Your task to perform on an android device: open chrome privacy settings Image 0: 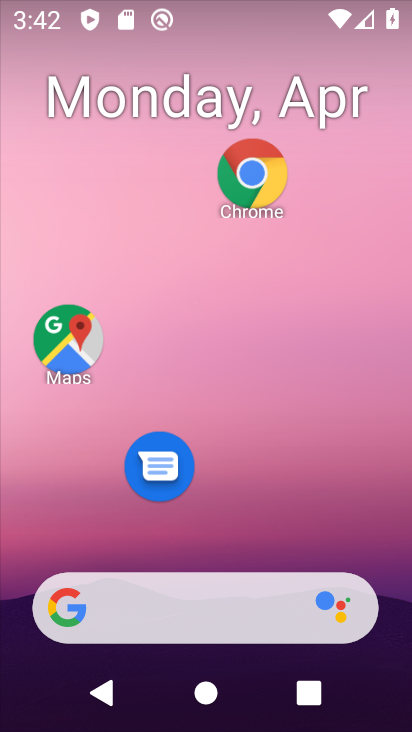
Step 0: click (248, 192)
Your task to perform on an android device: open chrome privacy settings Image 1: 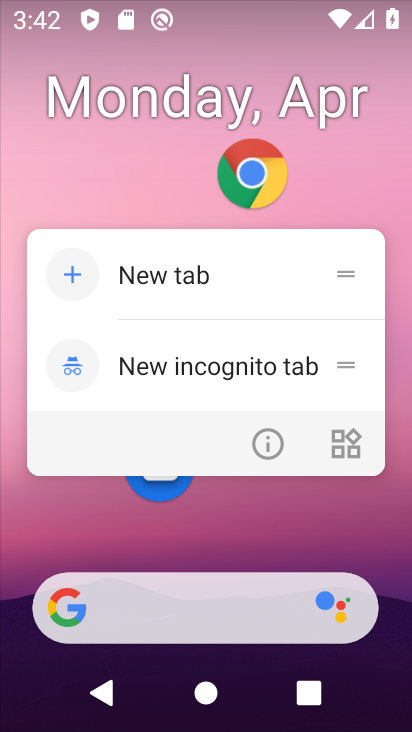
Step 1: click (226, 160)
Your task to perform on an android device: open chrome privacy settings Image 2: 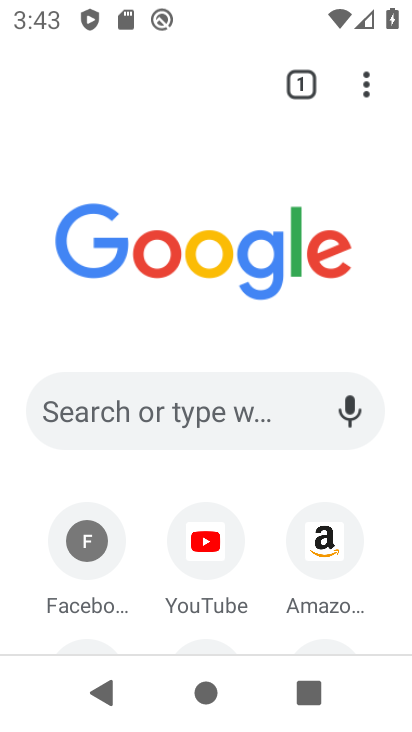
Step 2: click (367, 97)
Your task to perform on an android device: open chrome privacy settings Image 3: 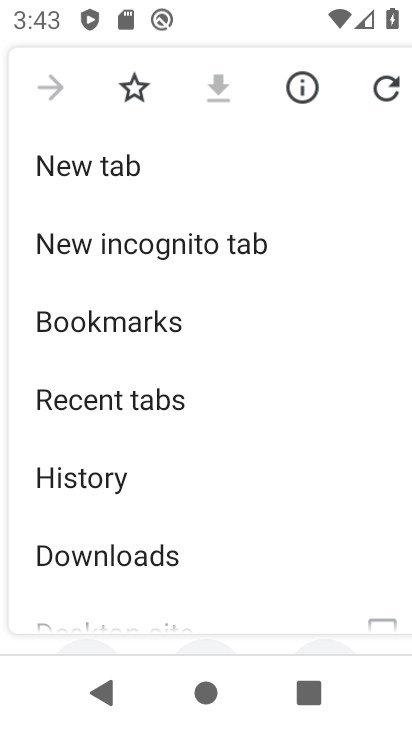
Step 3: drag from (280, 567) to (276, 194)
Your task to perform on an android device: open chrome privacy settings Image 4: 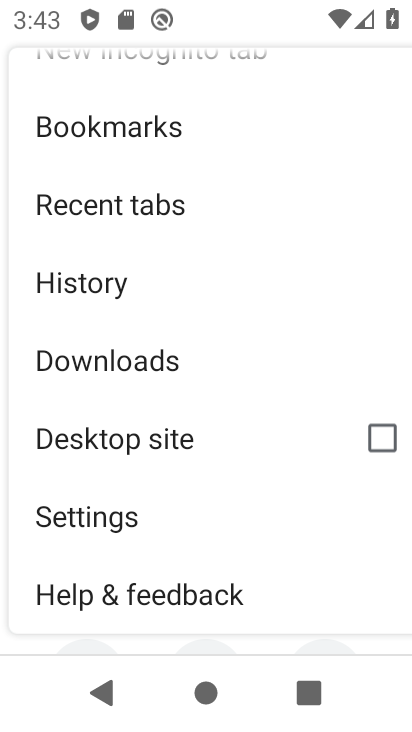
Step 4: click (234, 516)
Your task to perform on an android device: open chrome privacy settings Image 5: 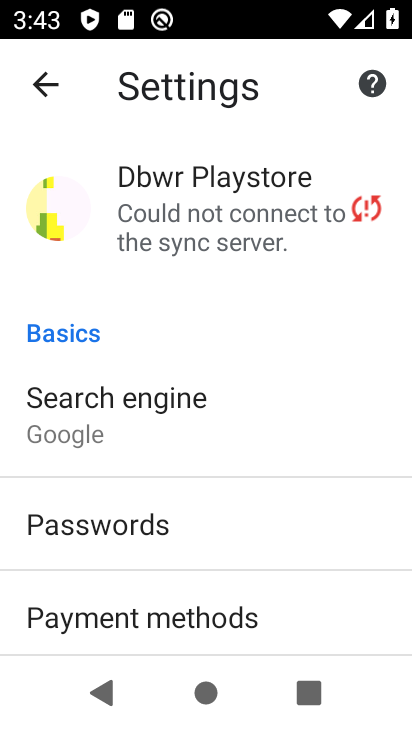
Step 5: drag from (239, 574) to (217, 330)
Your task to perform on an android device: open chrome privacy settings Image 6: 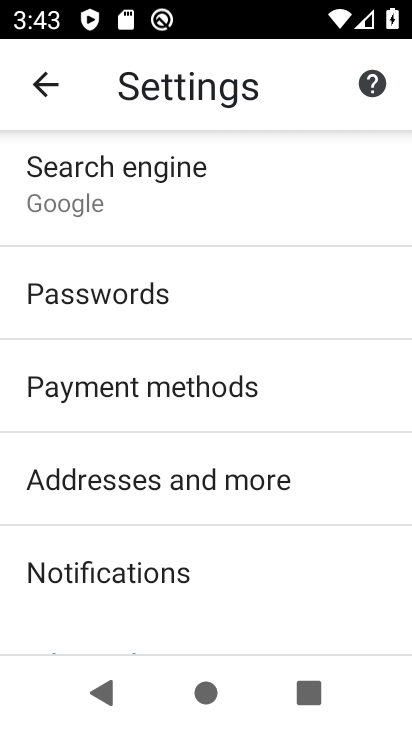
Step 6: drag from (246, 548) to (230, 245)
Your task to perform on an android device: open chrome privacy settings Image 7: 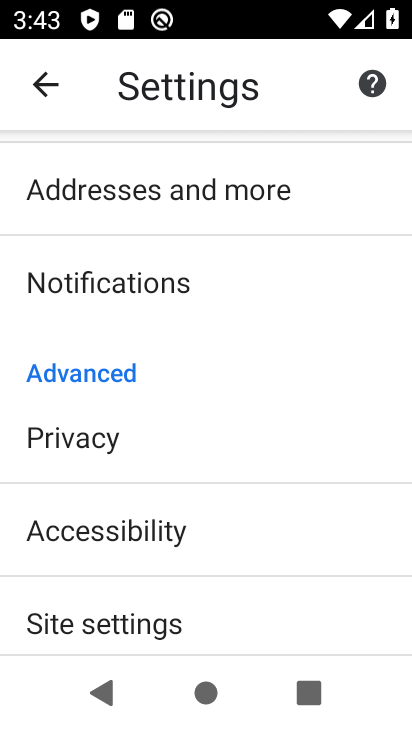
Step 7: click (241, 451)
Your task to perform on an android device: open chrome privacy settings Image 8: 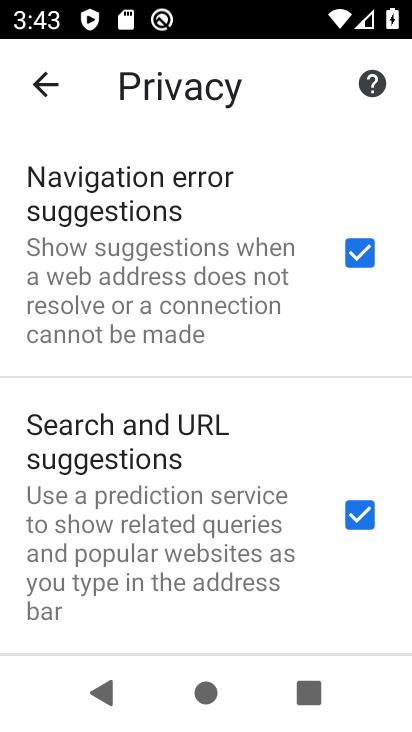
Step 8: task complete